Your task to perform on an android device: set an alarm Image 0: 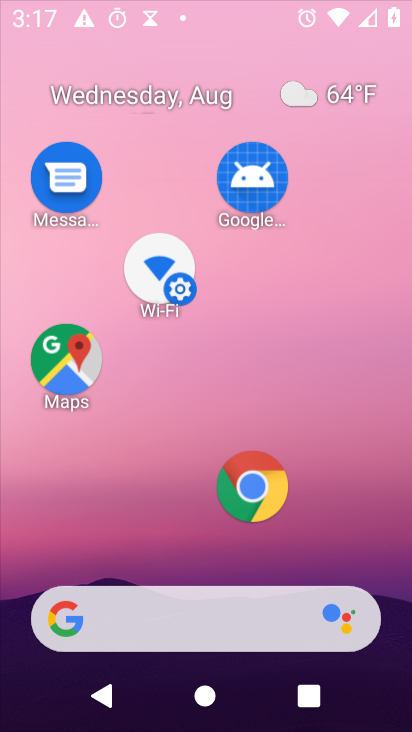
Step 0: press home button
Your task to perform on an android device: set an alarm Image 1: 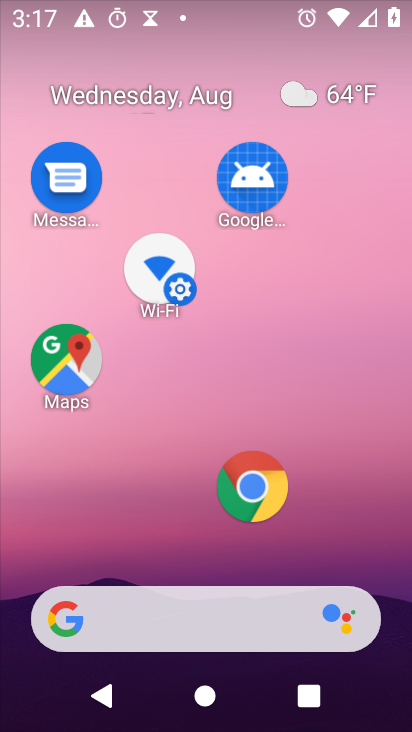
Step 1: drag from (362, 65) to (304, 326)
Your task to perform on an android device: set an alarm Image 2: 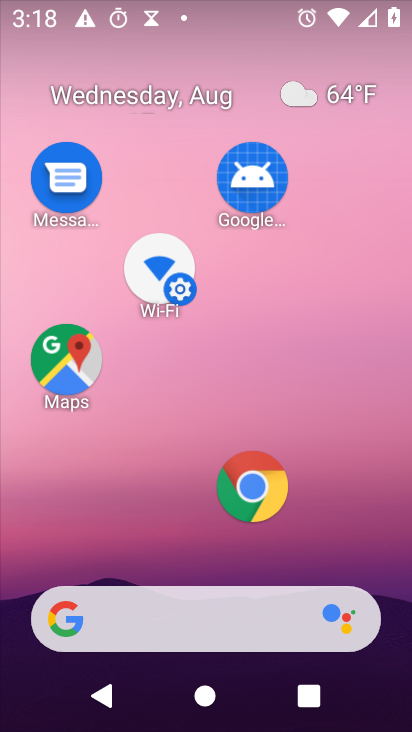
Step 2: drag from (348, 548) to (391, 366)
Your task to perform on an android device: set an alarm Image 3: 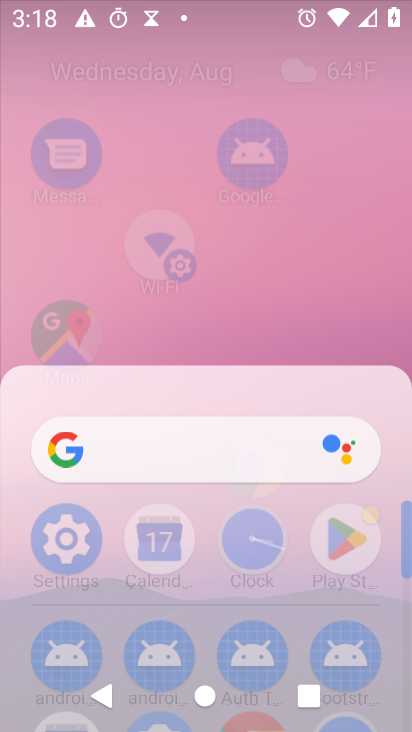
Step 3: click (249, 189)
Your task to perform on an android device: set an alarm Image 4: 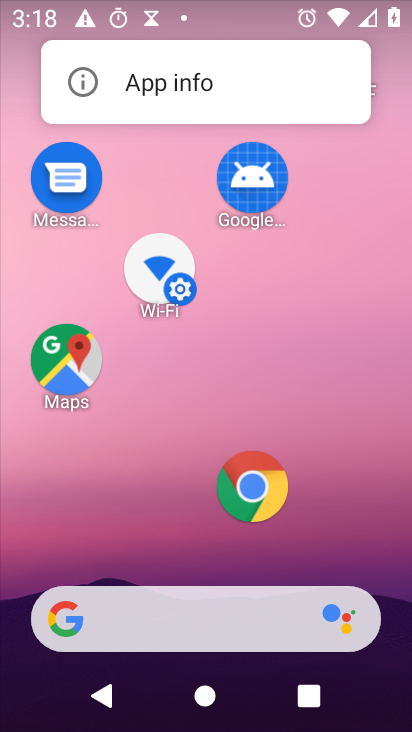
Step 4: drag from (382, 573) to (149, 109)
Your task to perform on an android device: set an alarm Image 5: 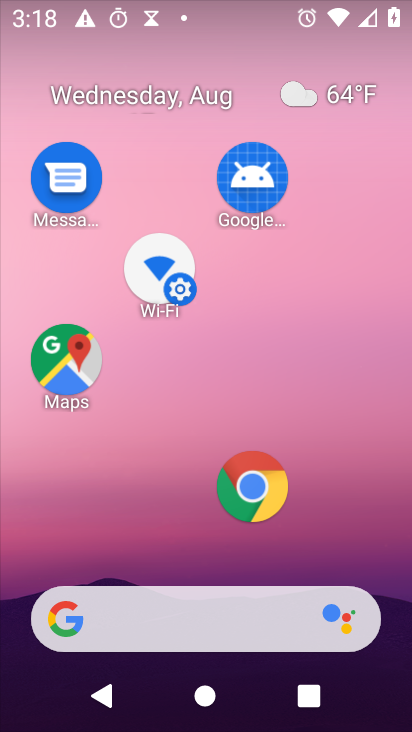
Step 5: drag from (365, 583) to (107, 84)
Your task to perform on an android device: set an alarm Image 6: 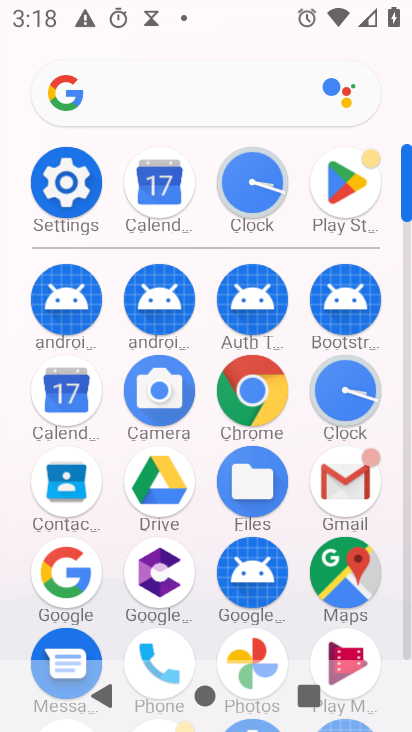
Step 6: click (249, 168)
Your task to perform on an android device: set an alarm Image 7: 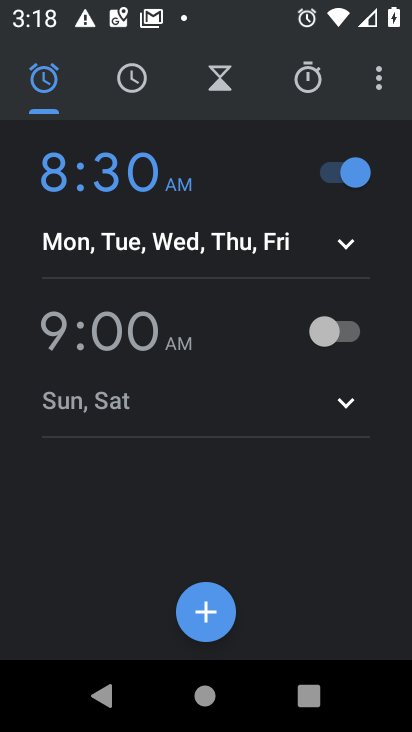
Step 7: click (313, 344)
Your task to perform on an android device: set an alarm Image 8: 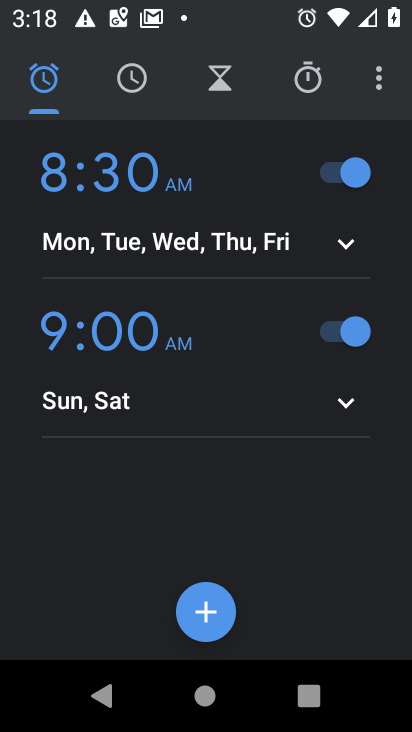
Step 8: task complete